Your task to perform on an android device: Open battery settings Image 0: 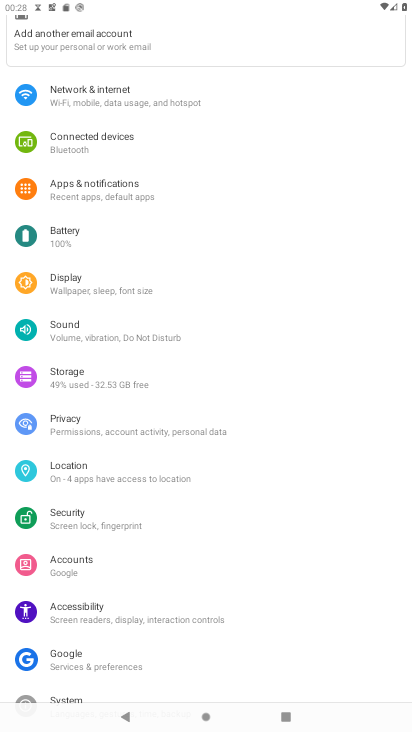
Step 0: click (85, 238)
Your task to perform on an android device: Open battery settings Image 1: 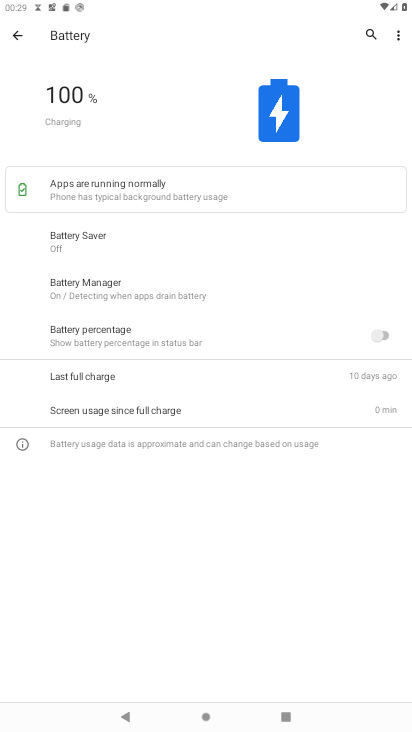
Step 1: task complete